Your task to perform on an android device: Search for vegetarian restaurants on Maps Image 0: 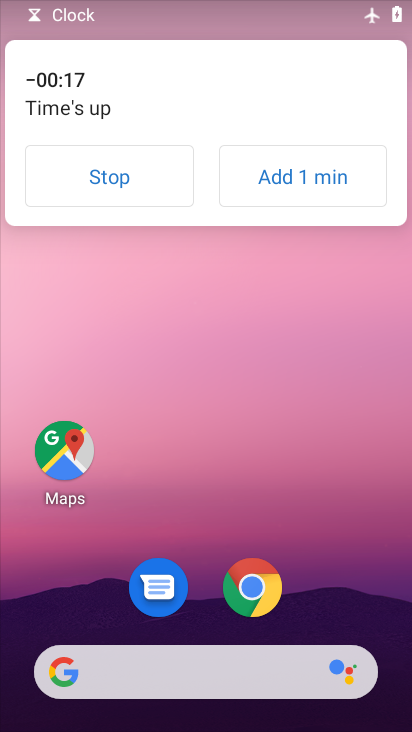
Step 0: click (68, 179)
Your task to perform on an android device: Search for vegetarian restaurants on Maps Image 1: 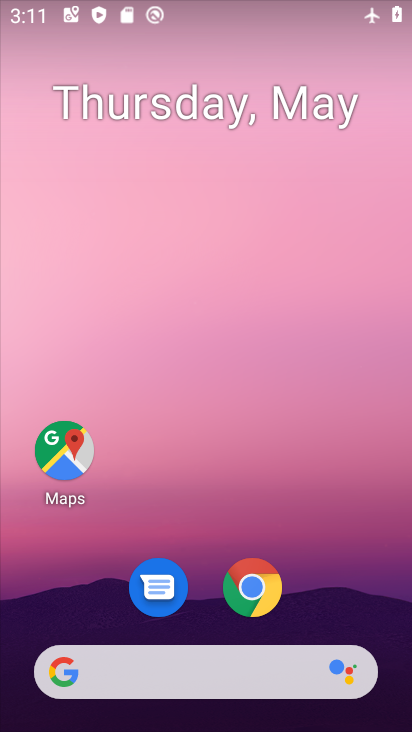
Step 1: drag from (186, 657) to (267, 177)
Your task to perform on an android device: Search for vegetarian restaurants on Maps Image 2: 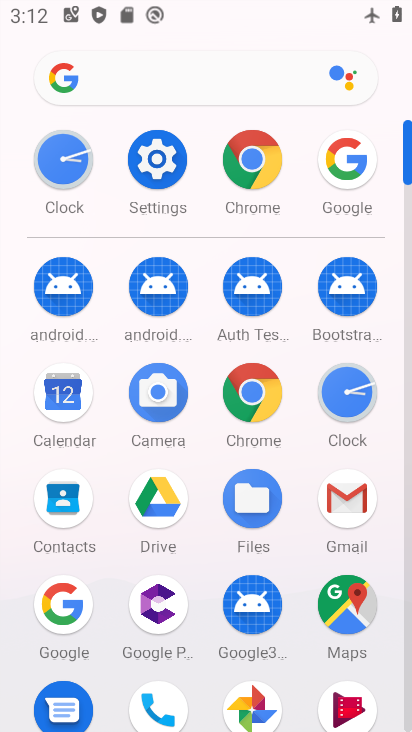
Step 2: click (370, 610)
Your task to perform on an android device: Search for vegetarian restaurants on Maps Image 3: 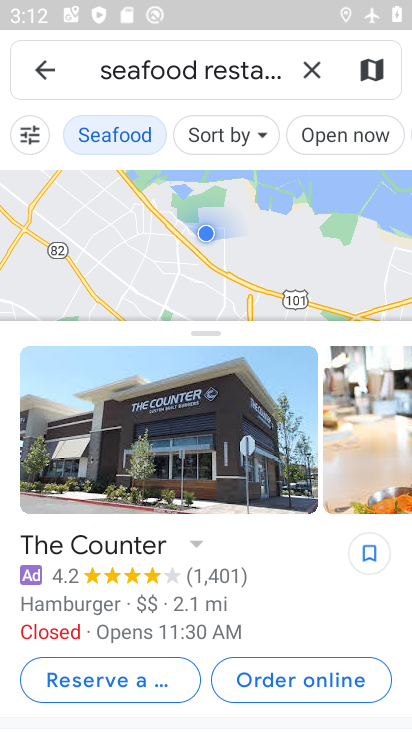
Step 3: click (321, 80)
Your task to perform on an android device: Search for vegetarian restaurants on Maps Image 4: 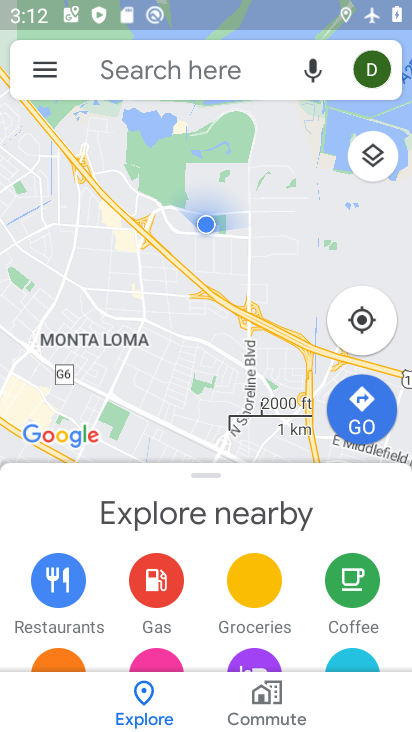
Step 4: task complete